Your task to perform on an android device: Open Google Image 0: 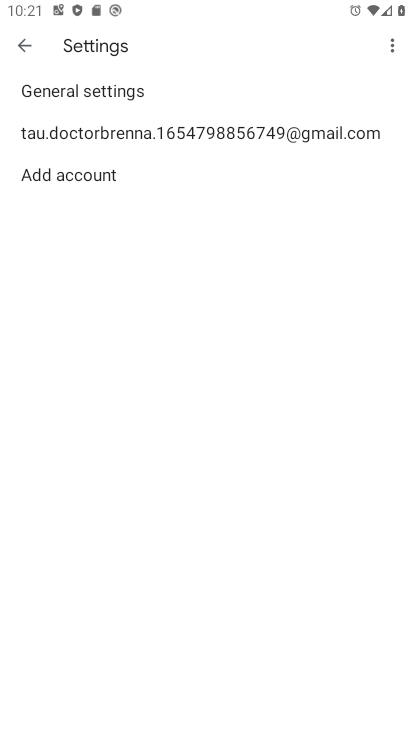
Step 0: press home button
Your task to perform on an android device: Open Google Image 1: 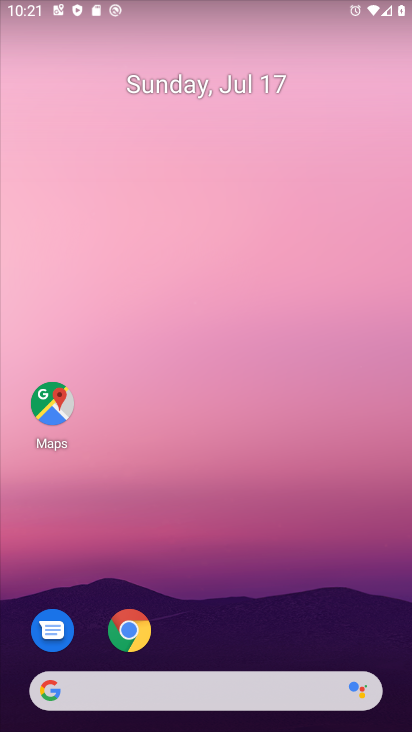
Step 1: drag from (357, 596) to (382, 86)
Your task to perform on an android device: Open Google Image 2: 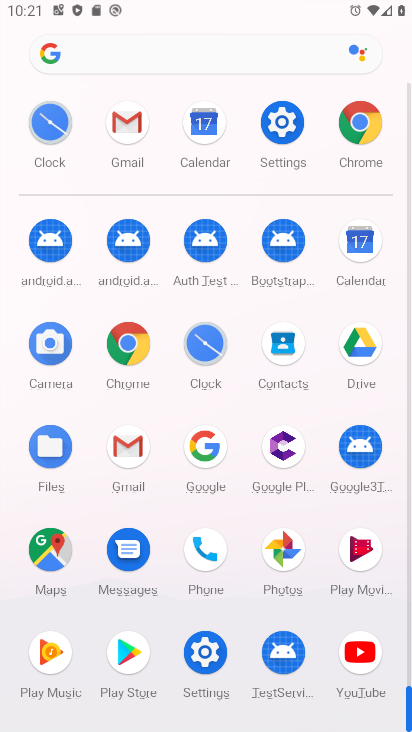
Step 2: click (207, 452)
Your task to perform on an android device: Open Google Image 3: 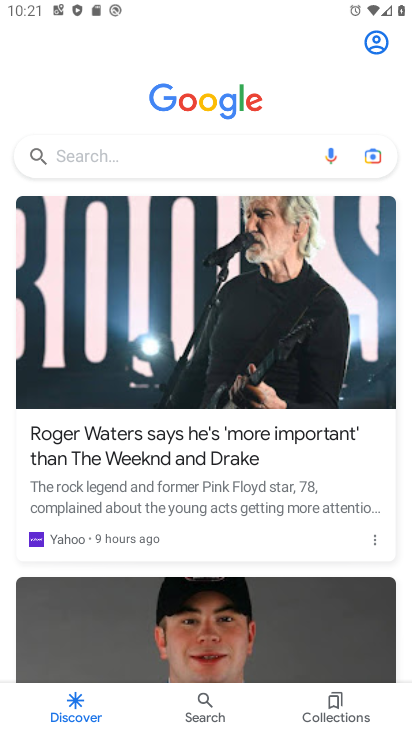
Step 3: task complete